Your task to perform on an android device: toggle pop-ups in chrome Image 0: 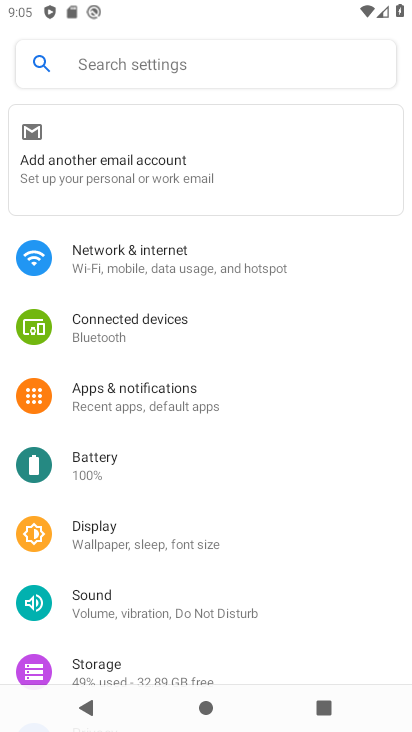
Step 0: press home button
Your task to perform on an android device: toggle pop-ups in chrome Image 1: 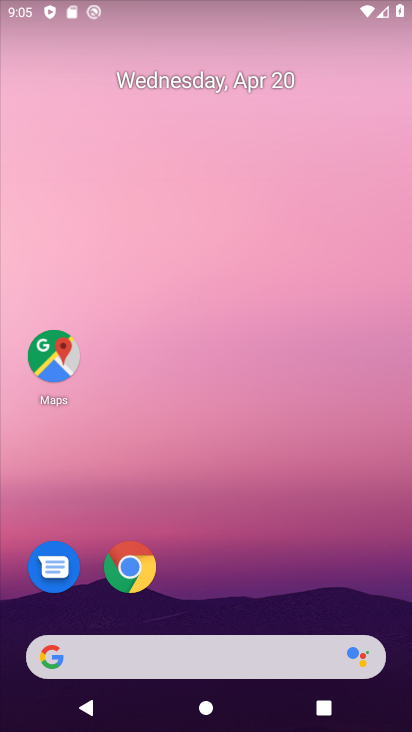
Step 1: drag from (259, 552) to (294, 188)
Your task to perform on an android device: toggle pop-ups in chrome Image 2: 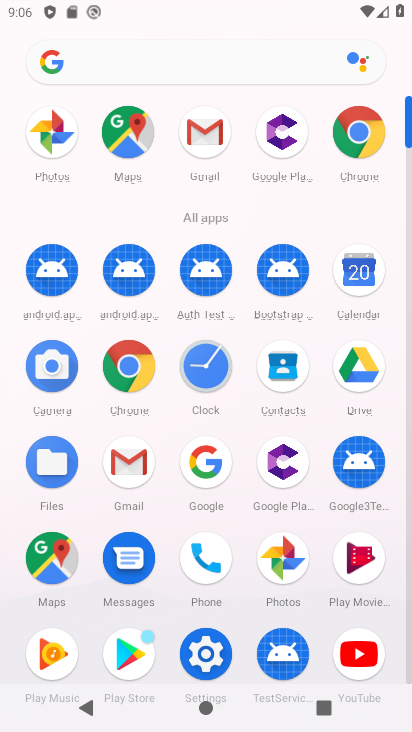
Step 2: click (133, 354)
Your task to perform on an android device: toggle pop-ups in chrome Image 3: 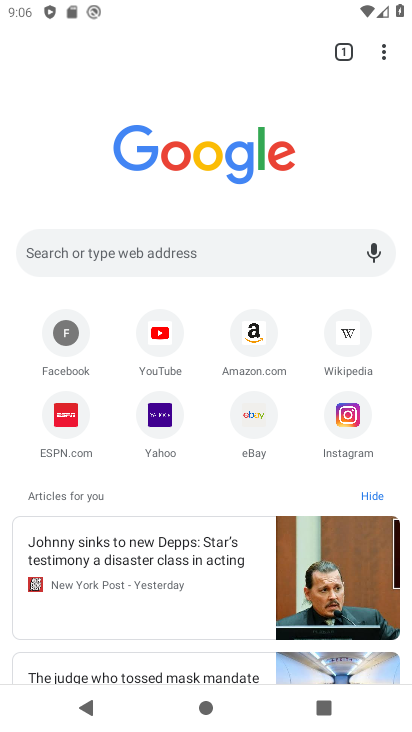
Step 3: click (386, 48)
Your task to perform on an android device: toggle pop-ups in chrome Image 4: 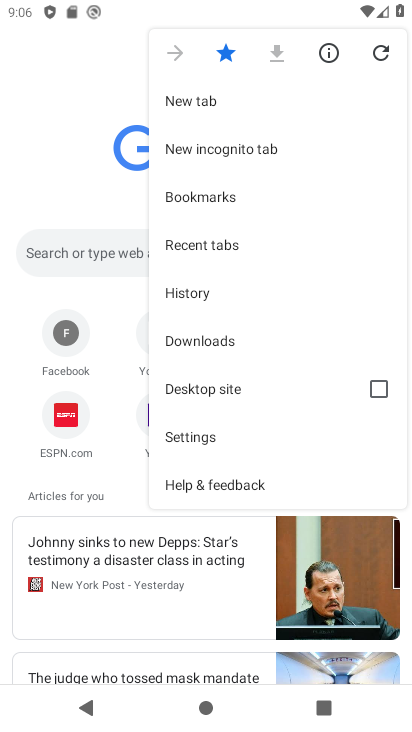
Step 4: click (213, 439)
Your task to perform on an android device: toggle pop-ups in chrome Image 5: 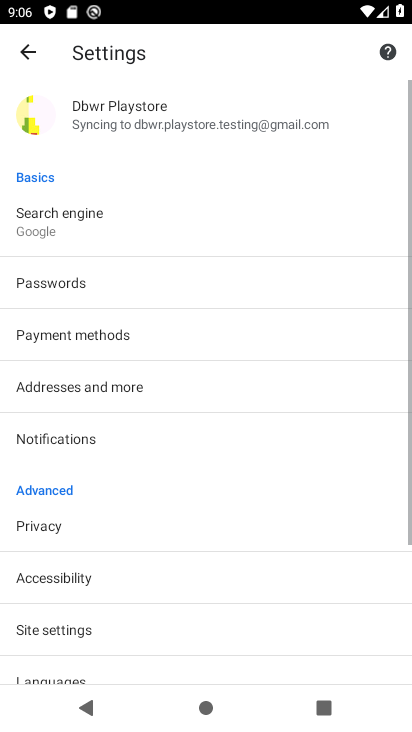
Step 5: drag from (205, 628) to (235, 199)
Your task to perform on an android device: toggle pop-ups in chrome Image 6: 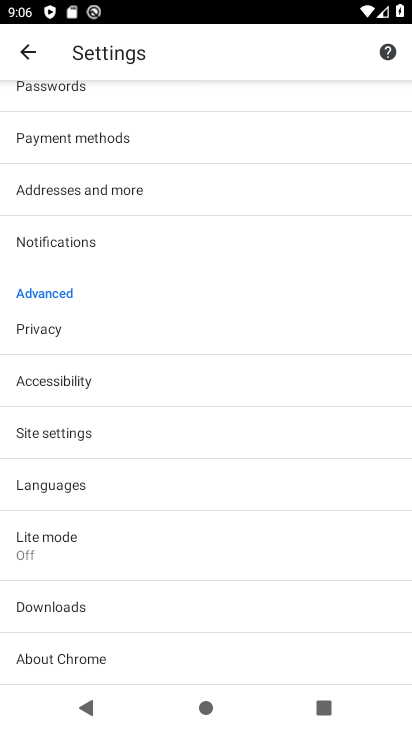
Step 6: drag from (207, 638) to (212, 476)
Your task to perform on an android device: toggle pop-ups in chrome Image 7: 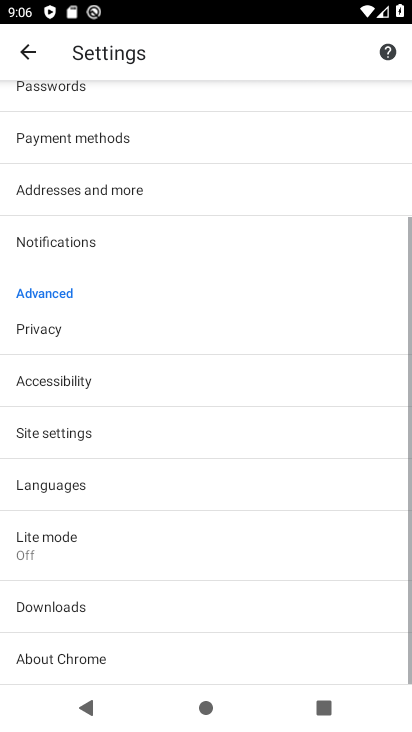
Step 7: click (192, 420)
Your task to perform on an android device: toggle pop-ups in chrome Image 8: 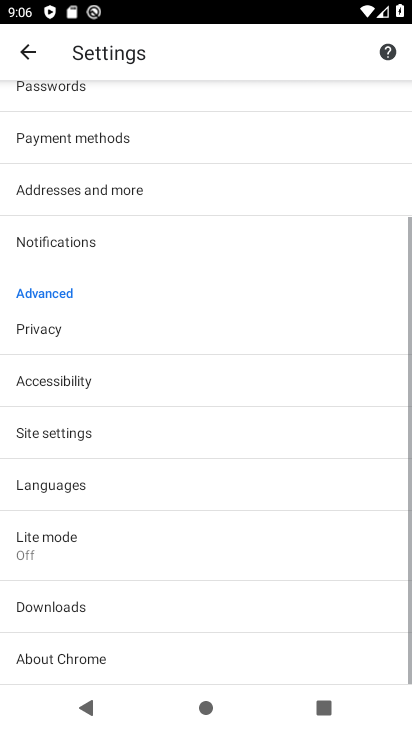
Step 8: click (192, 420)
Your task to perform on an android device: toggle pop-ups in chrome Image 9: 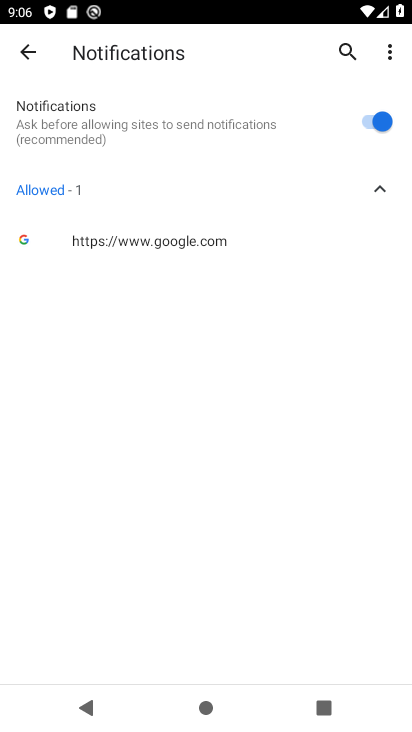
Step 9: click (21, 56)
Your task to perform on an android device: toggle pop-ups in chrome Image 10: 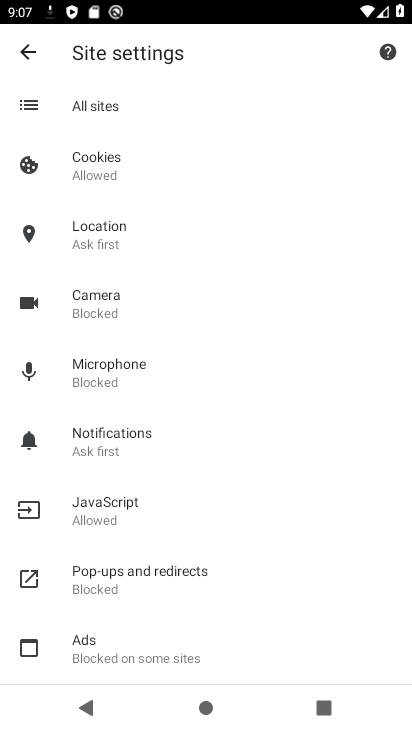
Step 10: click (174, 572)
Your task to perform on an android device: toggle pop-ups in chrome Image 11: 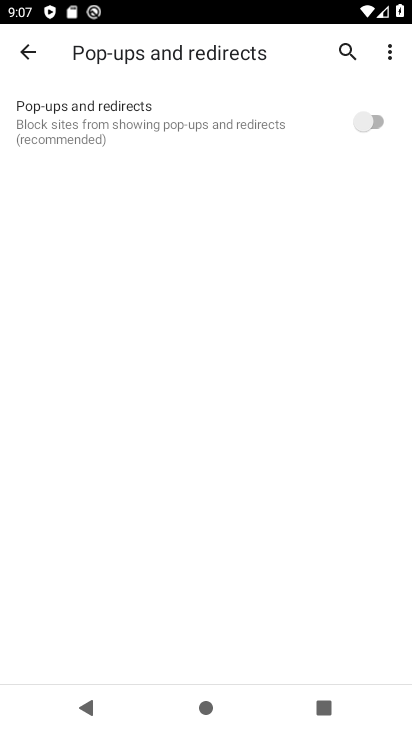
Step 11: task complete